Your task to perform on an android device: Open Wikipedia Image 0: 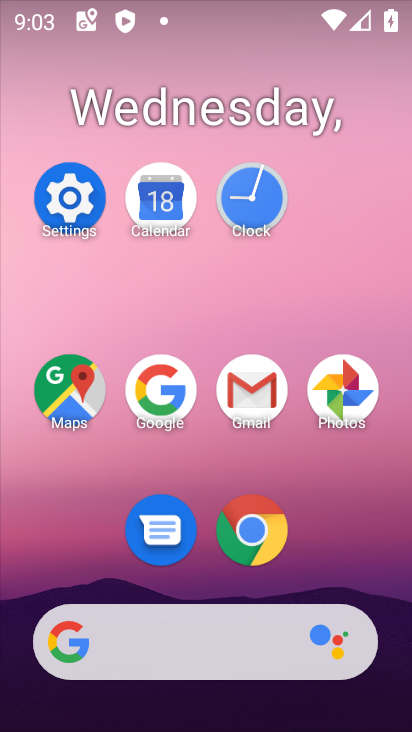
Step 0: click (246, 518)
Your task to perform on an android device: Open Wikipedia Image 1: 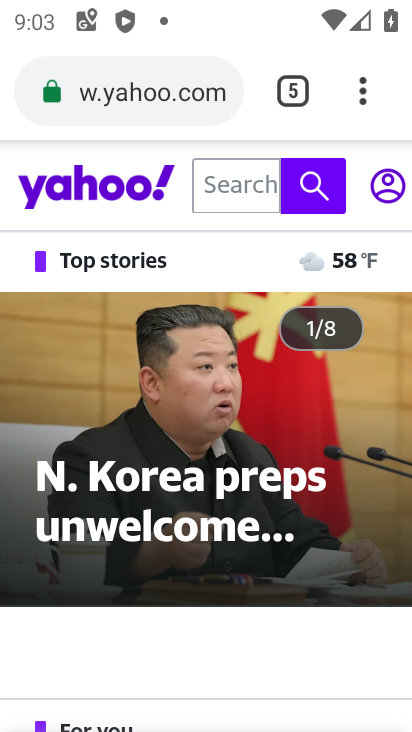
Step 1: click (297, 91)
Your task to perform on an android device: Open Wikipedia Image 2: 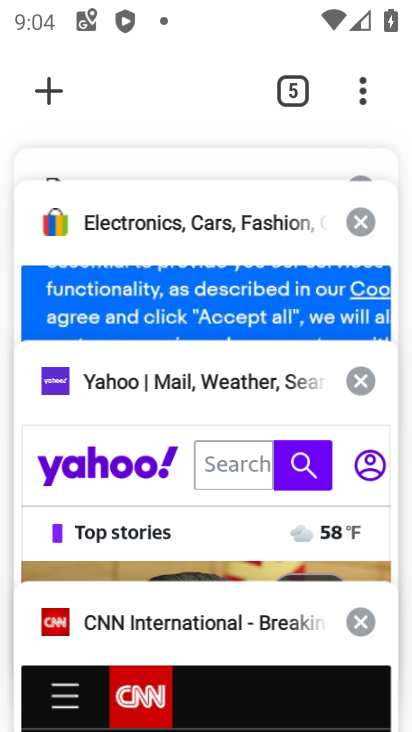
Step 2: drag from (218, 222) to (209, 588)
Your task to perform on an android device: Open Wikipedia Image 3: 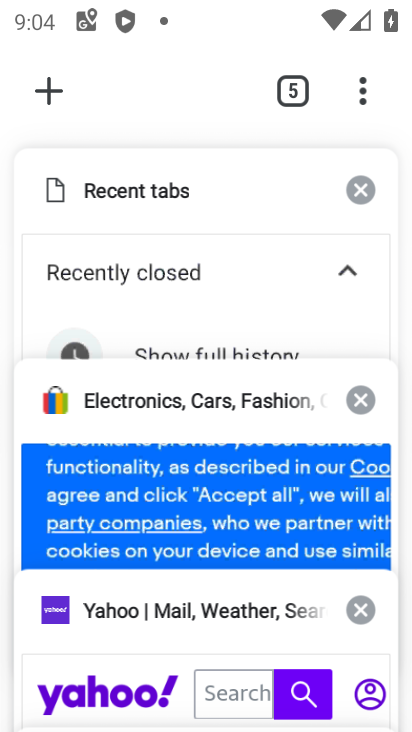
Step 3: drag from (223, 294) to (218, 592)
Your task to perform on an android device: Open Wikipedia Image 4: 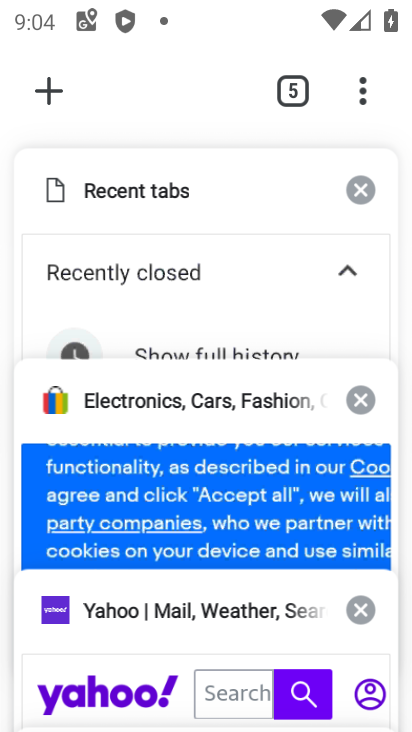
Step 4: drag from (217, 394) to (212, 149)
Your task to perform on an android device: Open Wikipedia Image 5: 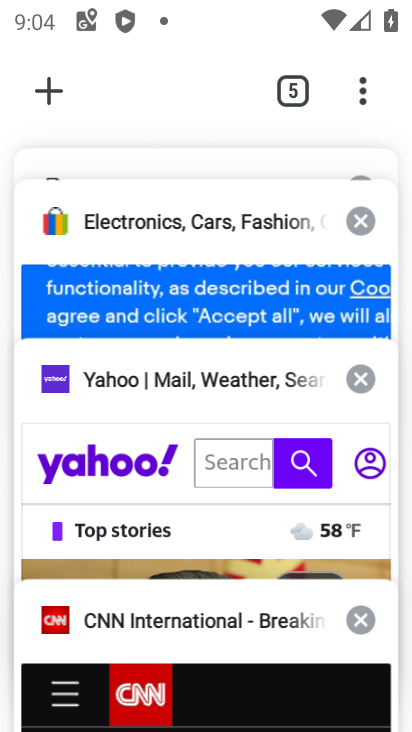
Step 5: drag from (219, 490) to (239, 153)
Your task to perform on an android device: Open Wikipedia Image 6: 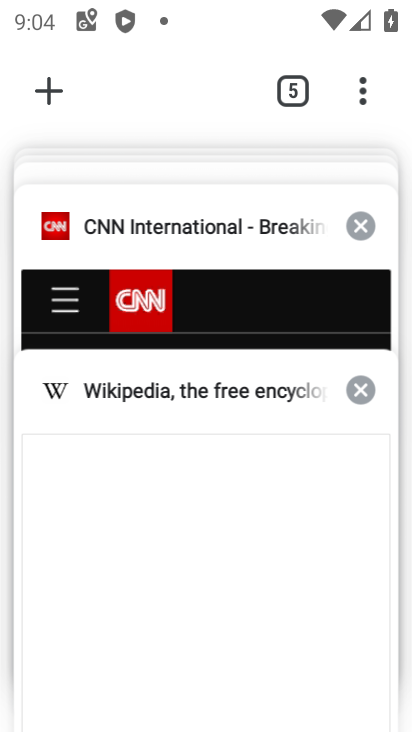
Step 6: click (75, 72)
Your task to perform on an android device: Open Wikipedia Image 7: 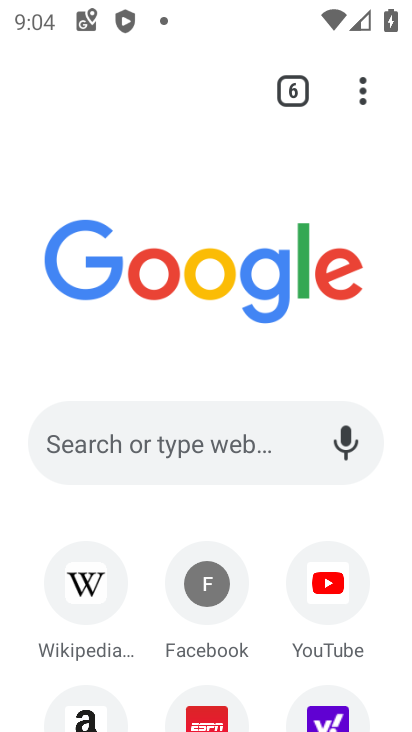
Step 7: click (88, 569)
Your task to perform on an android device: Open Wikipedia Image 8: 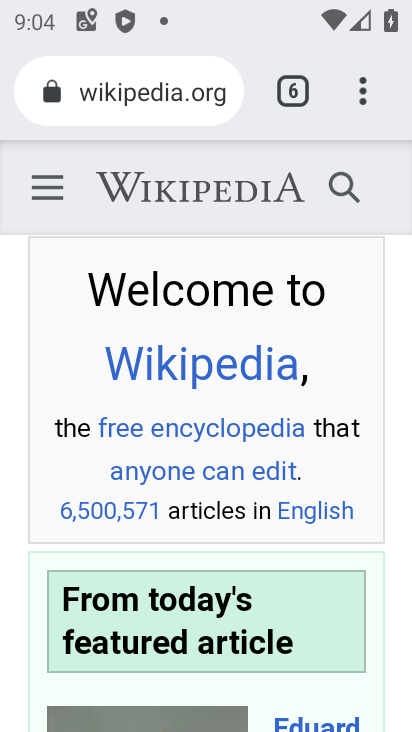
Step 8: task complete